Your task to perform on an android device: Open Yahoo.com Image 0: 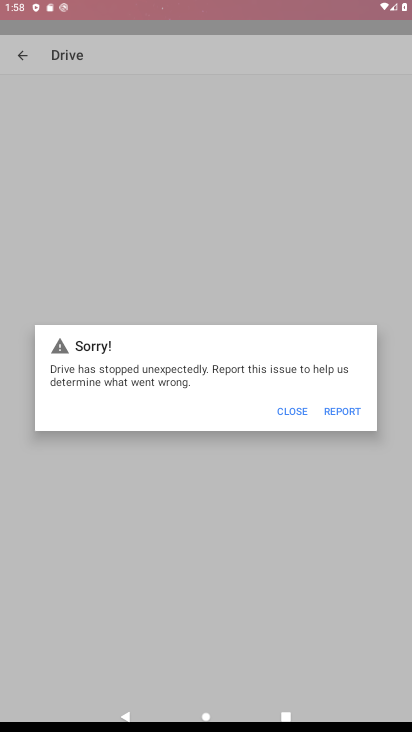
Step 0: drag from (167, 105) to (164, 26)
Your task to perform on an android device: Open Yahoo.com Image 1: 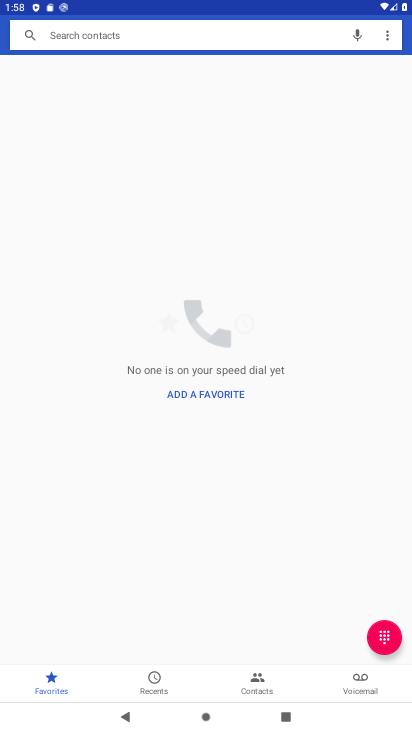
Step 1: drag from (226, 499) to (202, 259)
Your task to perform on an android device: Open Yahoo.com Image 2: 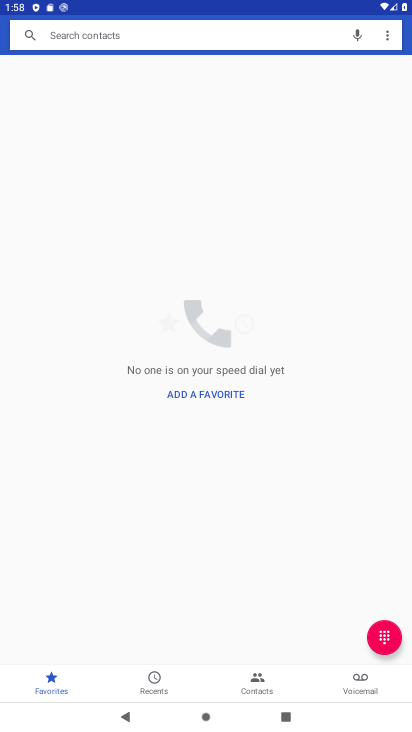
Step 2: press back button
Your task to perform on an android device: Open Yahoo.com Image 3: 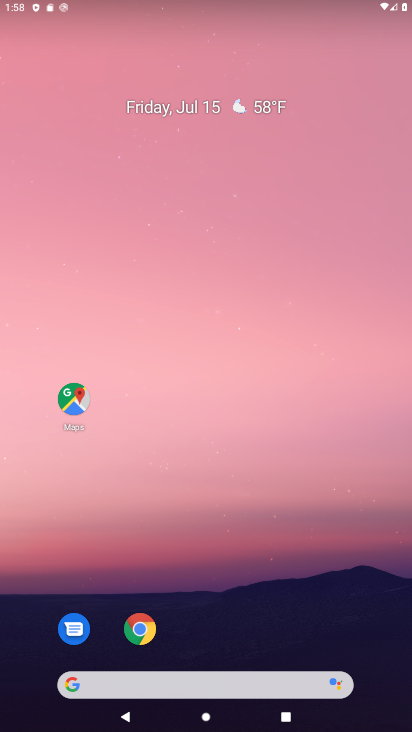
Step 3: drag from (236, 349) to (160, 143)
Your task to perform on an android device: Open Yahoo.com Image 4: 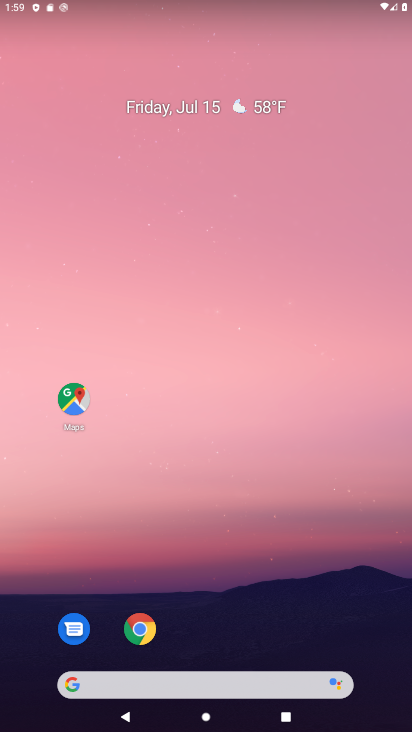
Step 4: drag from (230, 517) to (165, 221)
Your task to perform on an android device: Open Yahoo.com Image 5: 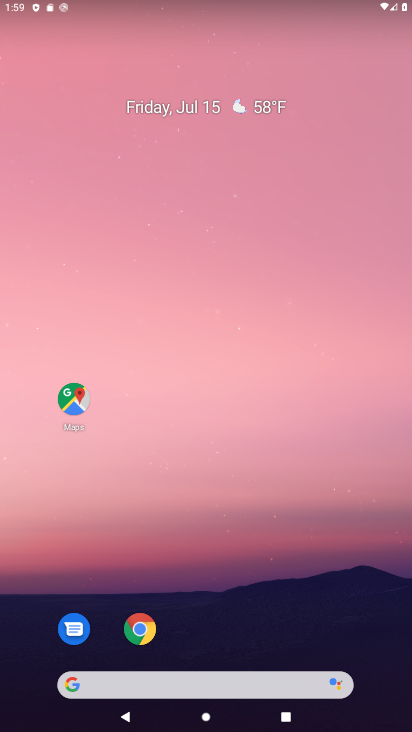
Step 5: drag from (187, 417) to (187, 251)
Your task to perform on an android device: Open Yahoo.com Image 6: 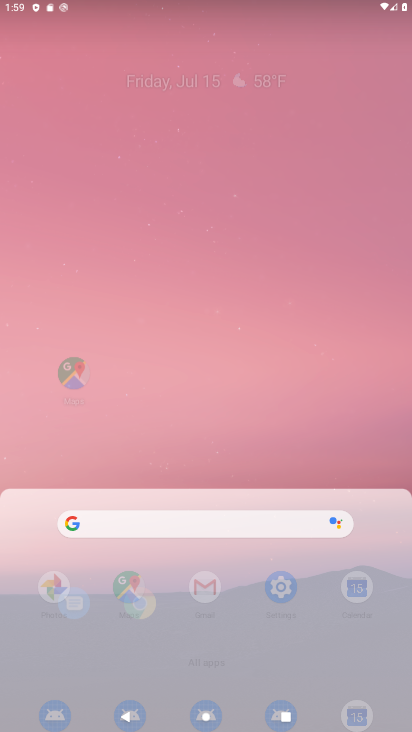
Step 6: drag from (222, 452) to (193, 170)
Your task to perform on an android device: Open Yahoo.com Image 7: 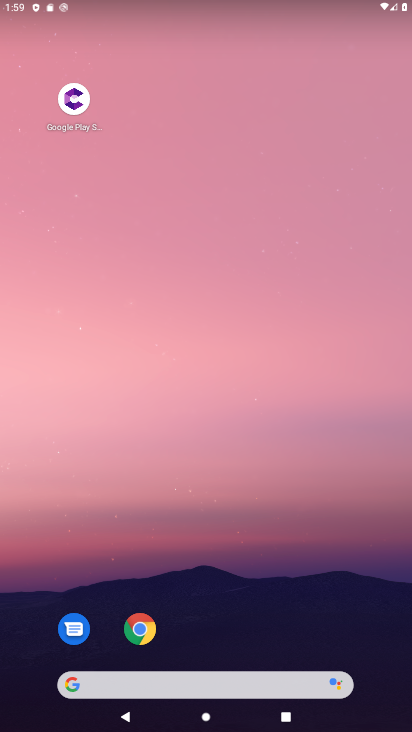
Step 7: drag from (209, 446) to (158, 88)
Your task to perform on an android device: Open Yahoo.com Image 8: 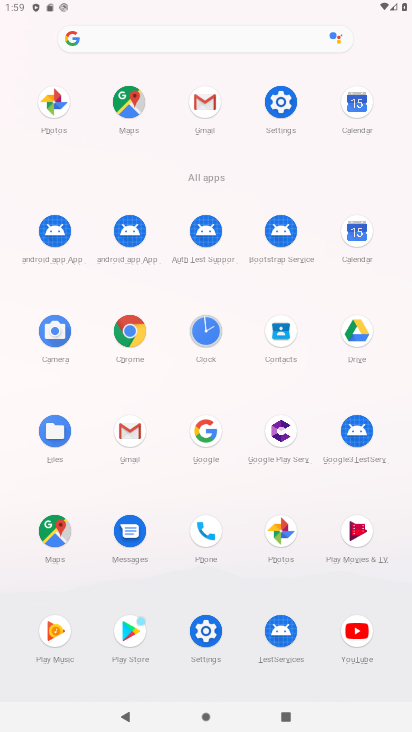
Step 8: drag from (244, 640) to (229, 126)
Your task to perform on an android device: Open Yahoo.com Image 9: 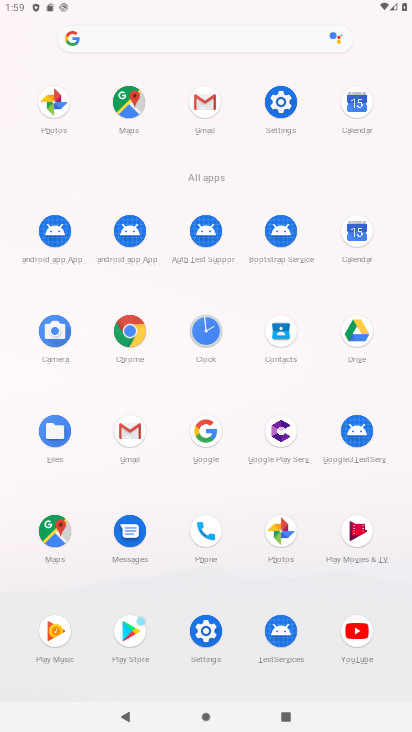
Step 9: click (126, 331)
Your task to perform on an android device: Open Yahoo.com Image 10: 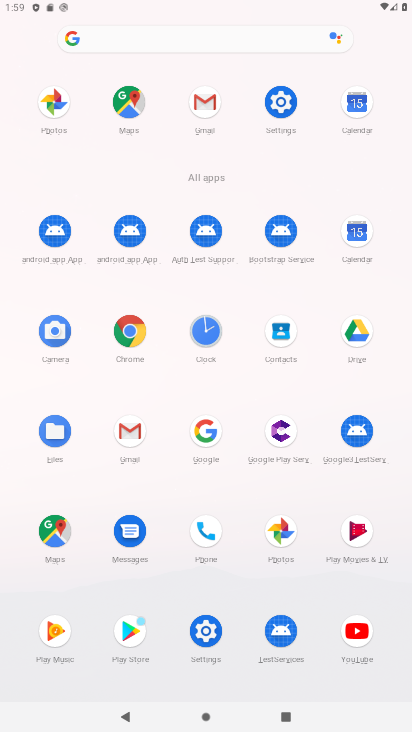
Step 10: click (126, 331)
Your task to perform on an android device: Open Yahoo.com Image 11: 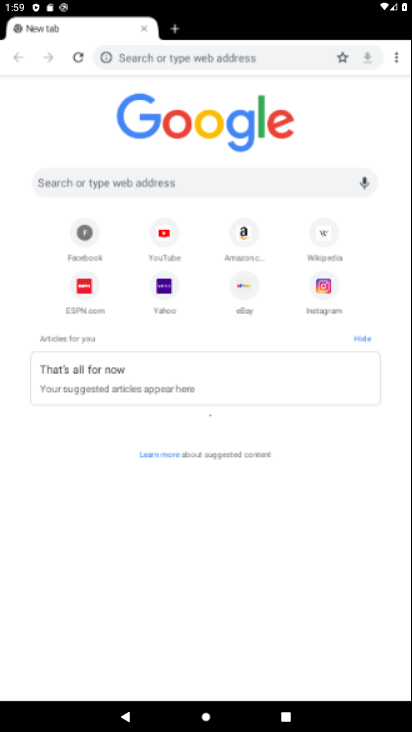
Step 11: click (126, 331)
Your task to perform on an android device: Open Yahoo.com Image 12: 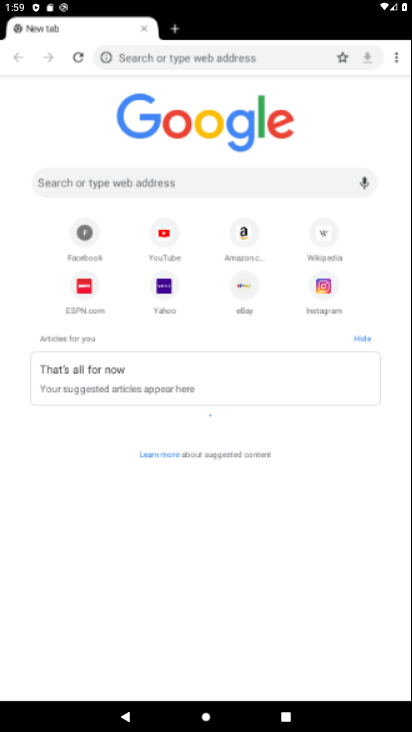
Step 12: click (159, 292)
Your task to perform on an android device: Open Yahoo.com Image 13: 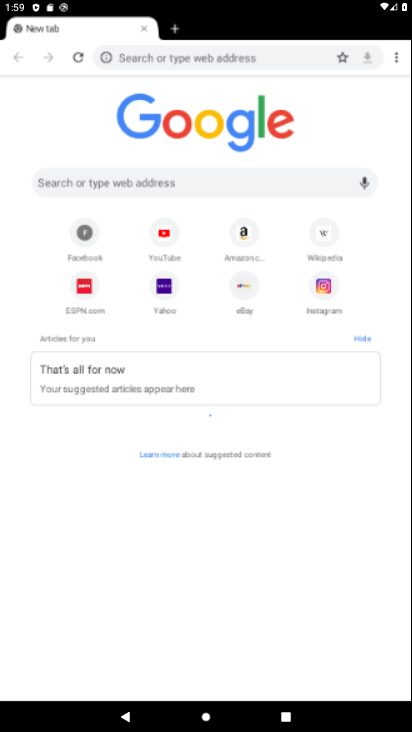
Step 13: click (159, 292)
Your task to perform on an android device: Open Yahoo.com Image 14: 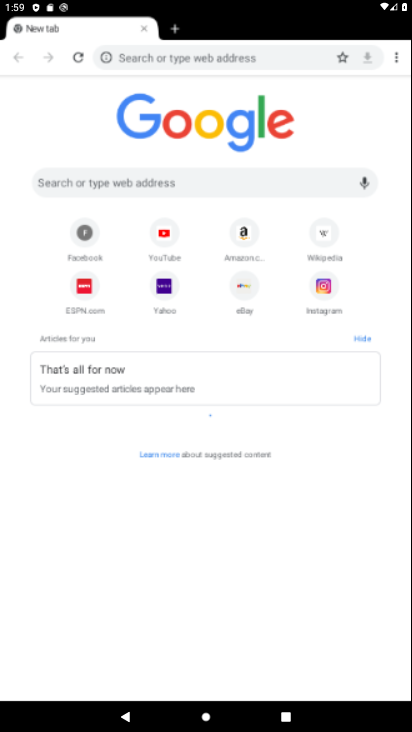
Step 14: click (159, 292)
Your task to perform on an android device: Open Yahoo.com Image 15: 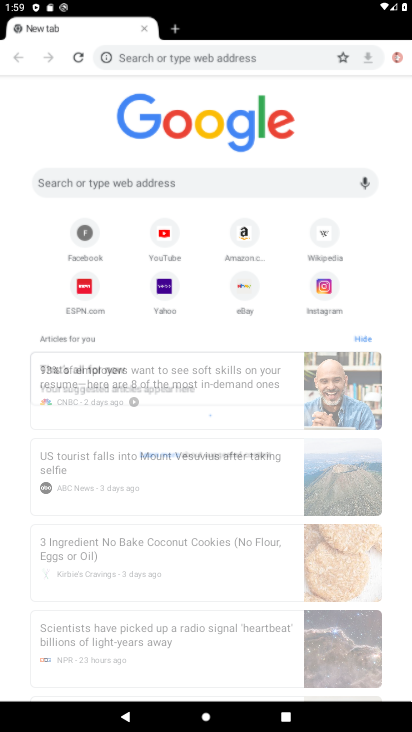
Step 15: click (159, 292)
Your task to perform on an android device: Open Yahoo.com Image 16: 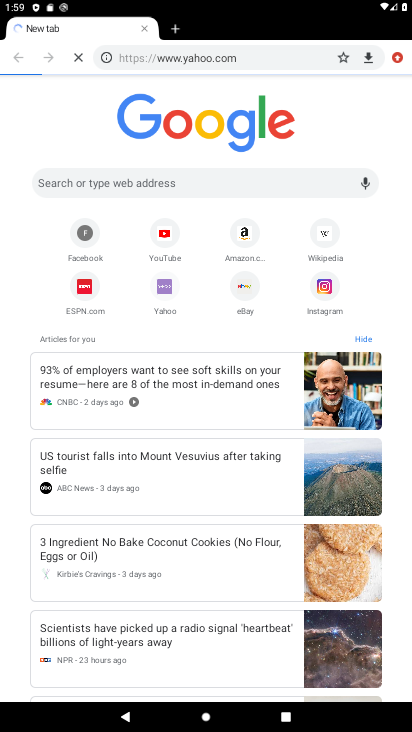
Step 16: click (159, 292)
Your task to perform on an android device: Open Yahoo.com Image 17: 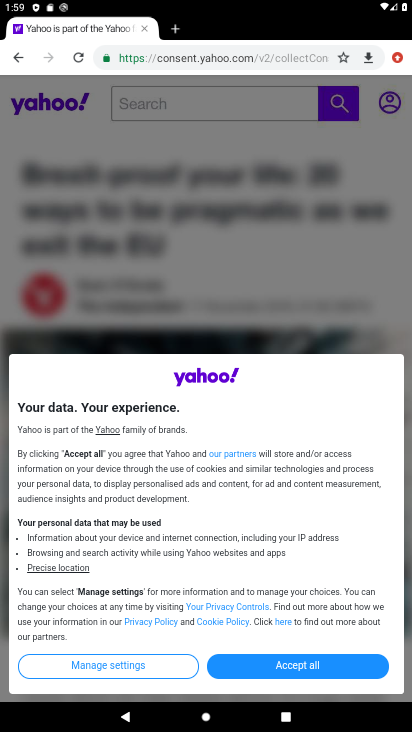
Step 17: task complete